Your task to perform on an android device: toggle improve location accuracy Image 0: 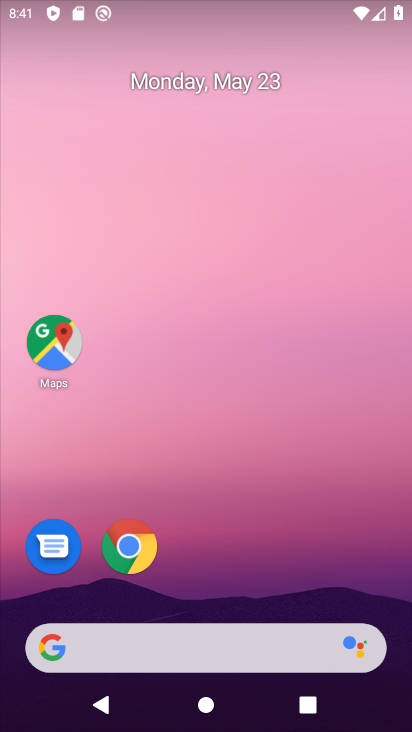
Step 0: drag from (293, 531) to (303, 120)
Your task to perform on an android device: toggle improve location accuracy Image 1: 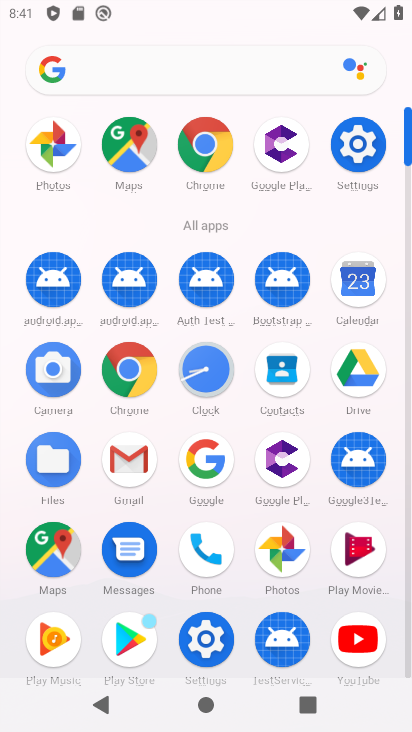
Step 1: click (364, 148)
Your task to perform on an android device: toggle improve location accuracy Image 2: 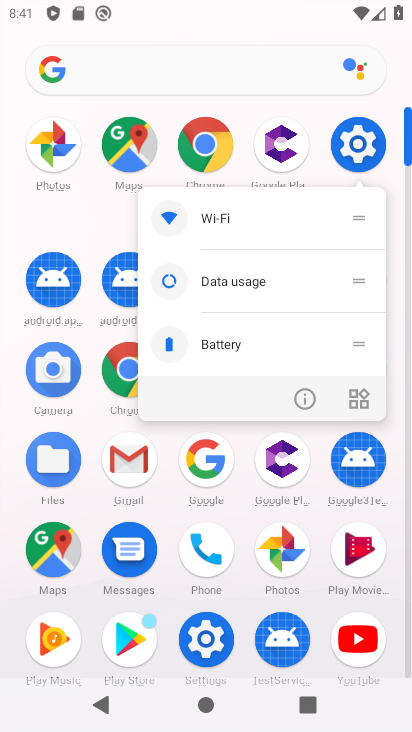
Step 2: click (359, 150)
Your task to perform on an android device: toggle improve location accuracy Image 3: 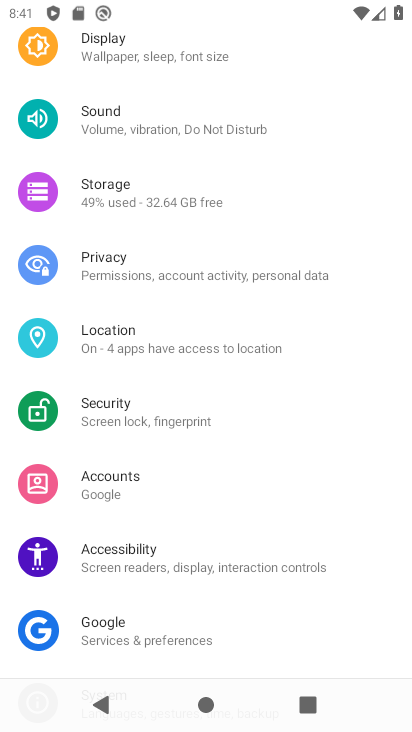
Step 3: click (183, 349)
Your task to perform on an android device: toggle improve location accuracy Image 4: 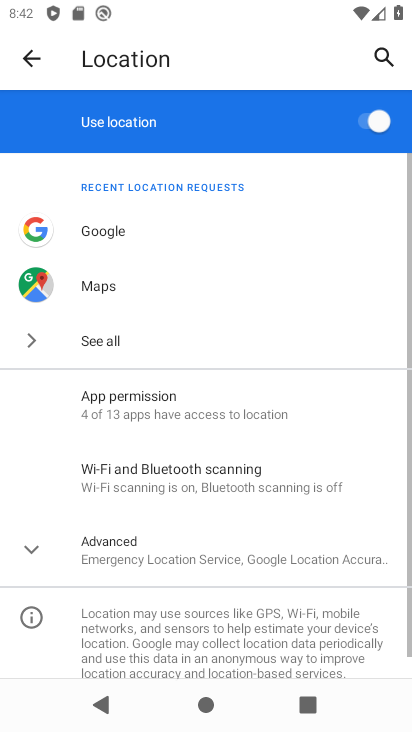
Step 4: click (240, 547)
Your task to perform on an android device: toggle improve location accuracy Image 5: 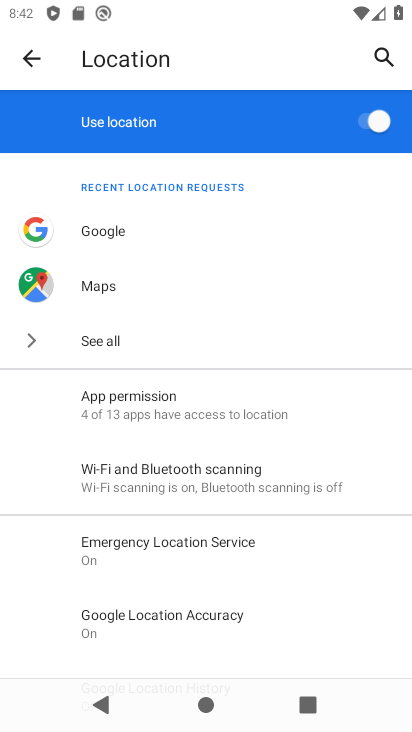
Step 5: drag from (296, 602) to (322, 473)
Your task to perform on an android device: toggle improve location accuracy Image 6: 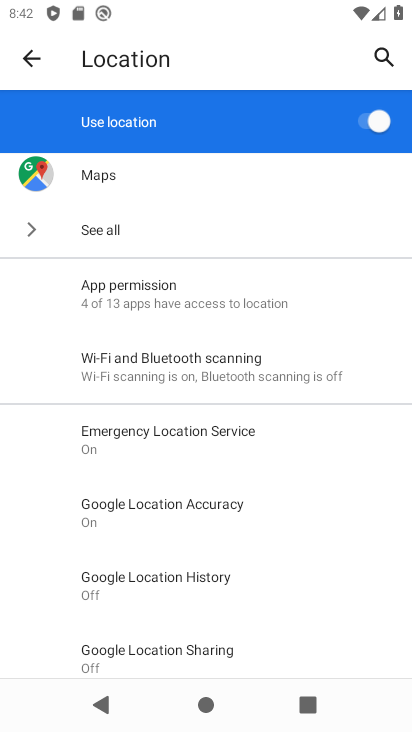
Step 6: click (232, 519)
Your task to perform on an android device: toggle improve location accuracy Image 7: 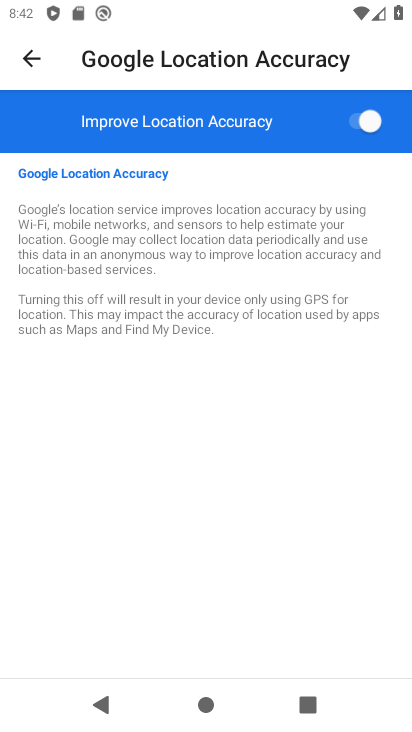
Step 7: click (377, 124)
Your task to perform on an android device: toggle improve location accuracy Image 8: 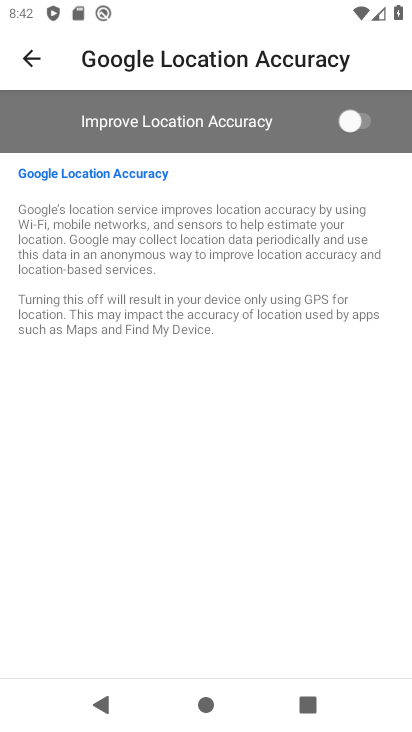
Step 8: task complete